Your task to perform on an android device: star an email in the gmail app Image 0: 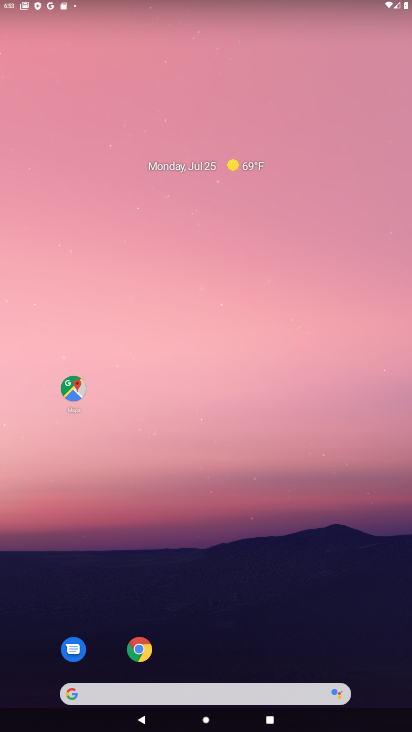
Step 0: drag from (284, 642) to (327, 53)
Your task to perform on an android device: star an email in the gmail app Image 1: 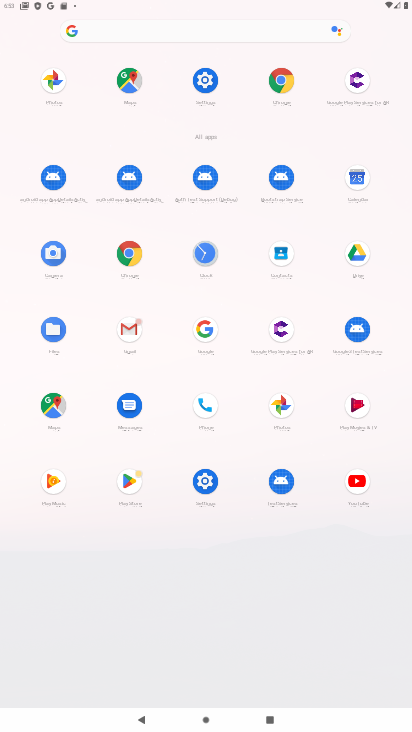
Step 1: click (115, 327)
Your task to perform on an android device: star an email in the gmail app Image 2: 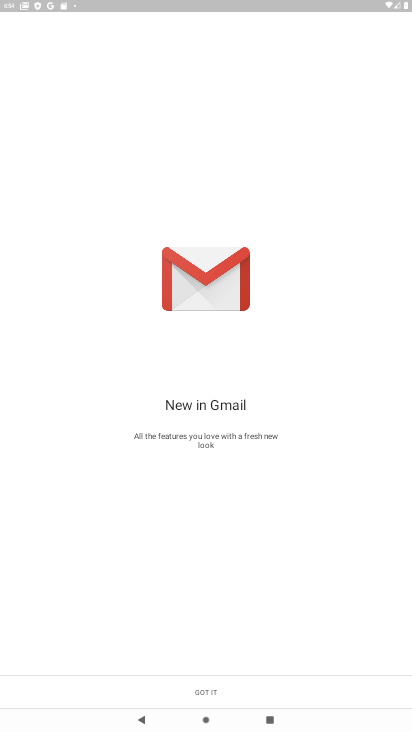
Step 2: click (184, 692)
Your task to perform on an android device: star an email in the gmail app Image 3: 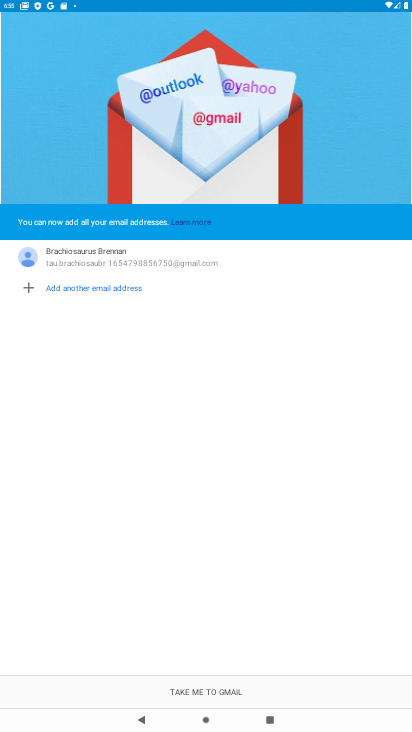
Step 3: click (219, 684)
Your task to perform on an android device: star an email in the gmail app Image 4: 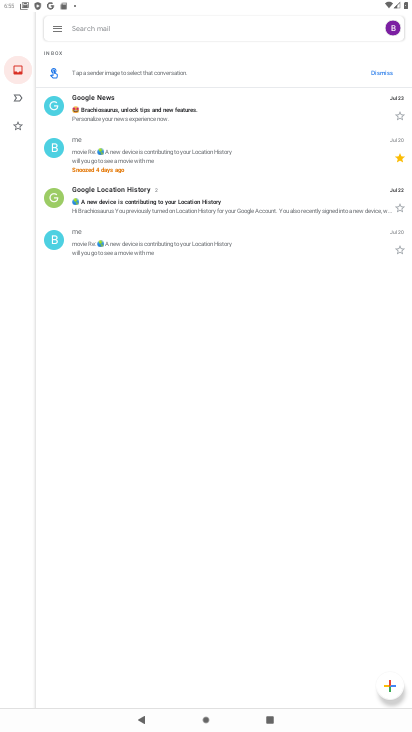
Step 4: click (400, 121)
Your task to perform on an android device: star an email in the gmail app Image 5: 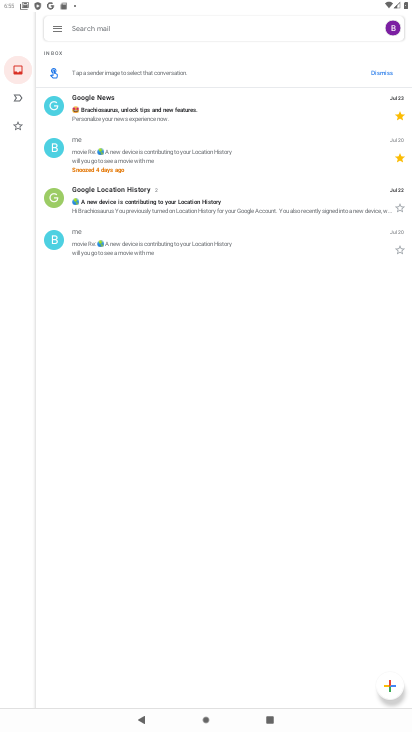
Step 5: task complete